Your task to perform on an android device: Open the calendar app, open the side menu, and click the "Day" option Image 0: 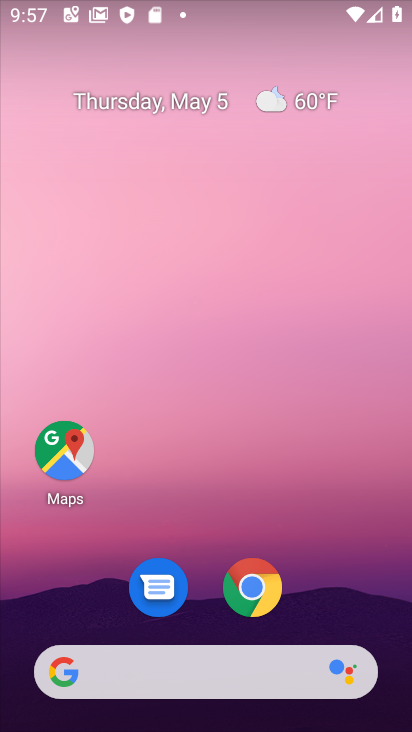
Step 0: drag from (84, 638) to (240, 38)
Your task to perform on an android device: Open the calendar app, open the side menu, and click the "Day" option Image 1: 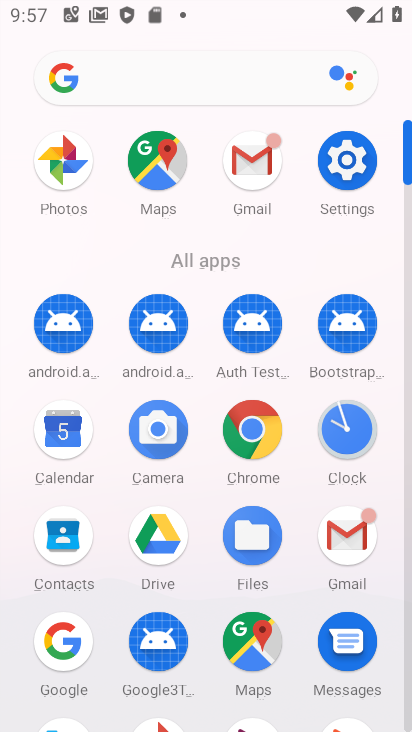
Step 1: click (54, 444)
Your task to perform on an android device: Open the calendar app, open the side menu, and click the "Day" option Image 2: 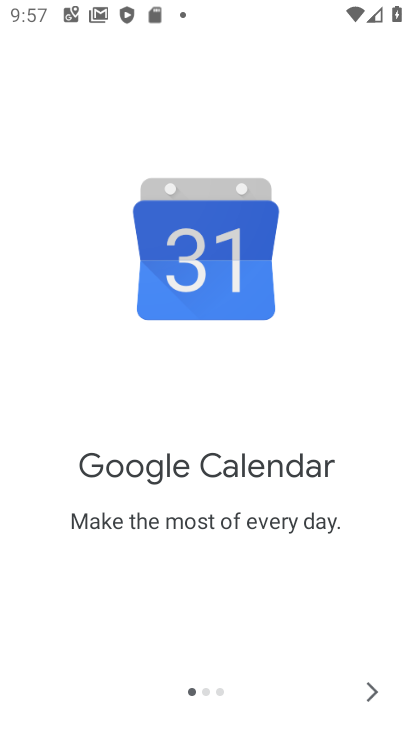
Step 2: click (372, 686)
Your task to perform on an android device: Open the calendar app, open the side menu, and click the "Day" option Image 3: 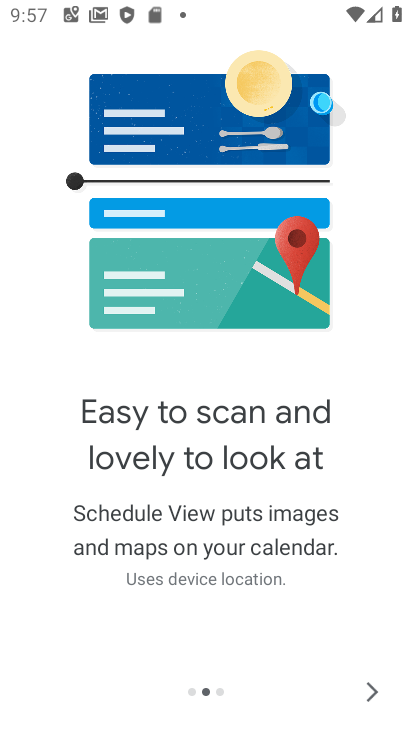
Step 3: click (371, 697)
Your task to perform on an android device: Open the calendar app, open the side menu, and click the "Day" option Image 4: 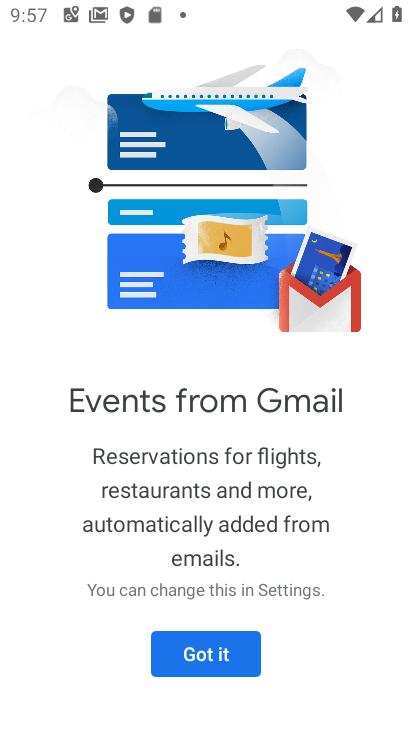
Step 4: click (246, 655)
Your task to perform on an android device: Open the calendar app, open the side menu, and click the "Day" option Image 5: 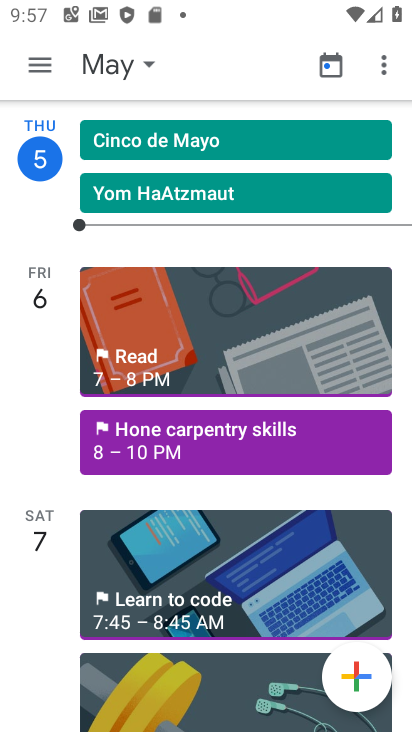
Step 5: click (38, 71)
Your task to perform on an android device: Open the calendar app, open the side menu, and click the "Day" option Image 6: 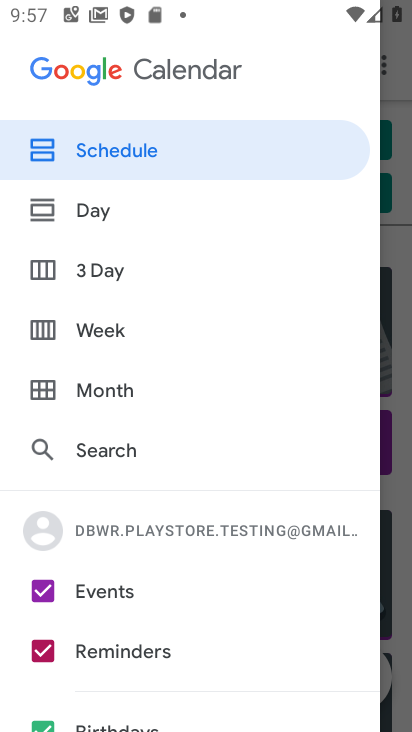
Step 6: click (113, 220)
Your task to perform on an android device: Open the calendar app, open the side menu, and click the "Day" option Image 7: 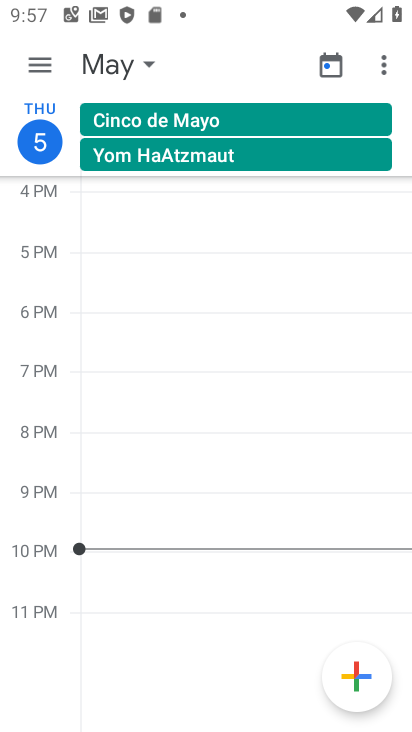
Step 7: task complete